Your task to perform on an android device: See recent photos Image 0: 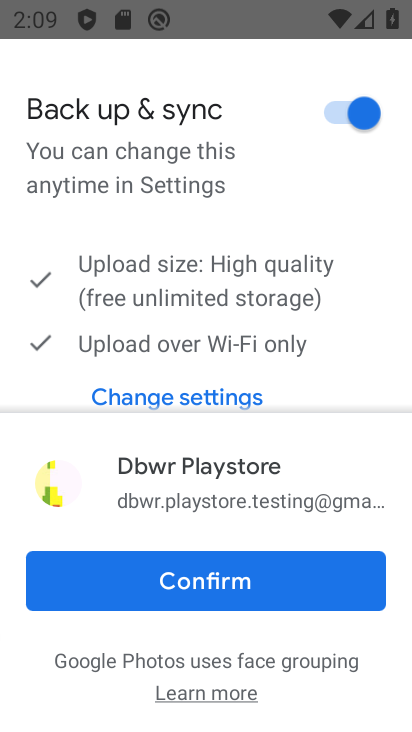
Step 0: press home button
Your task to perform on an android device: See recent photos Image 1: 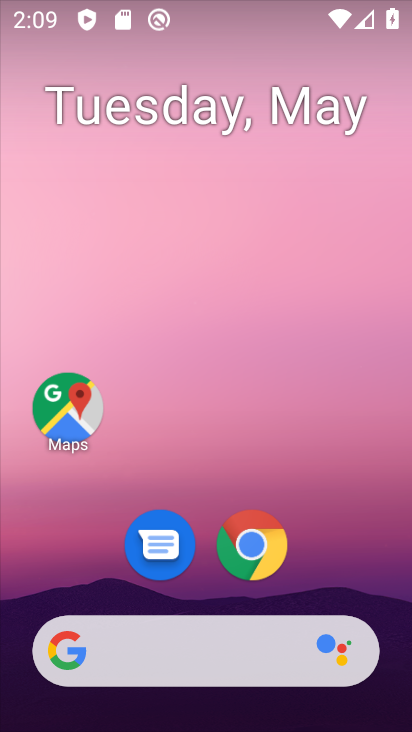
Step 1: drag from (205, 597) to (261, 15)
Your task to perform on an android device: See recent photos Image 2: 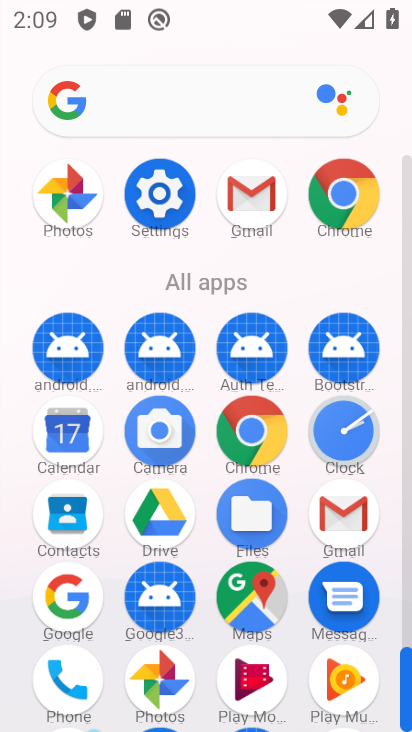
Step 2: click (76, 200)
Your task to perform on an android device: See recent photos Image 3: 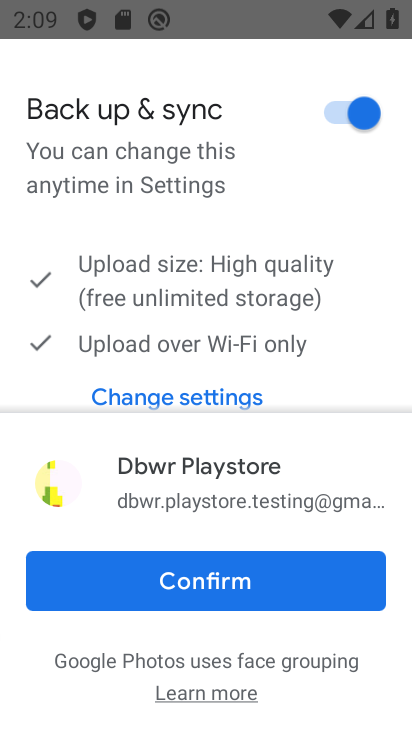
Step 3: click (176, 567)
Your task to perform on an android device: See recent photos Image 4: 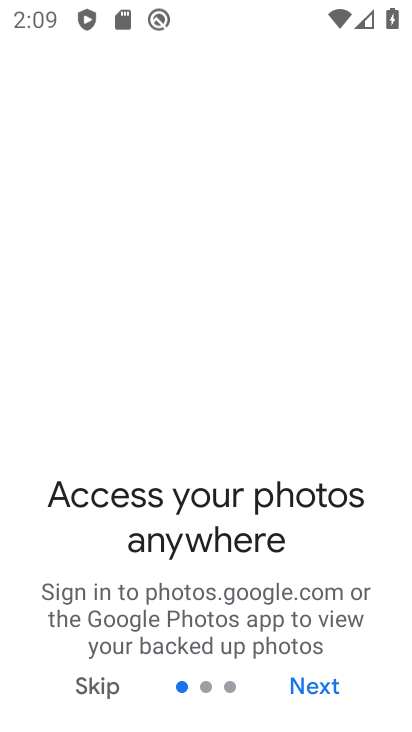
Step 4: click (325, 687)
Your task to perform on an android device: See recent photos Image 5: 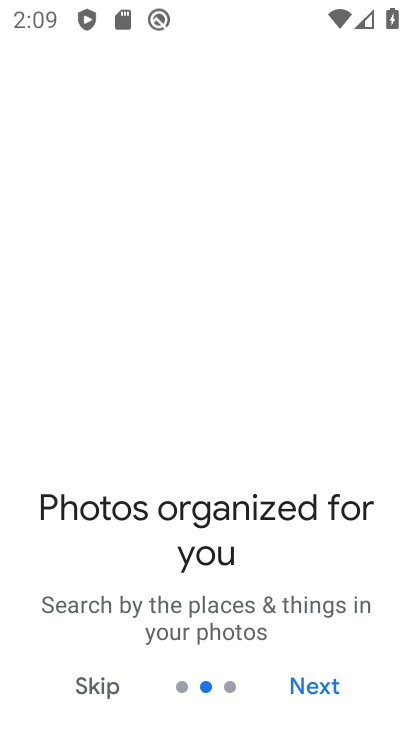
Step 5: click (325, 687)
Your task to perform on an android device: See recent photos Image 6: 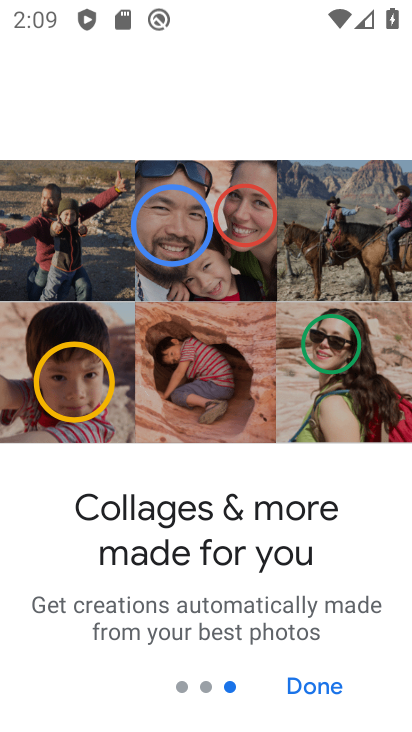
Step 6: click (325, 687)
Your task to perform on an android device: See recent photos Image 7: 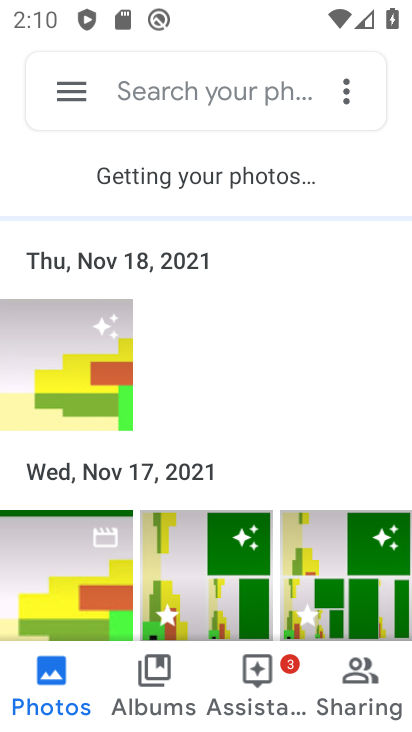
Step 7: task complete